Your task to perform on an android device: Go to Wikipedia Image 0: 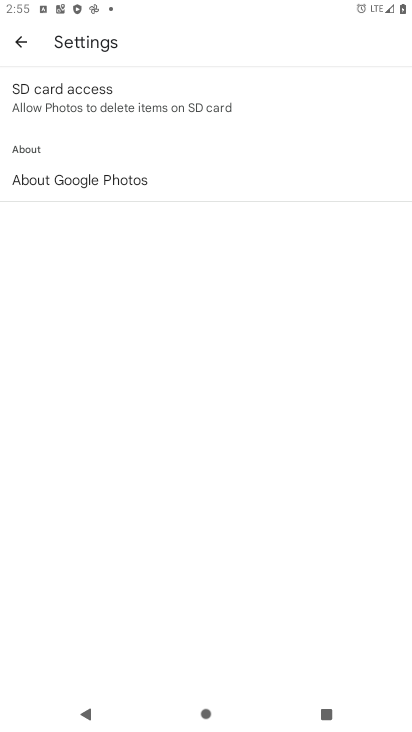
Step 0: press home button
Your task to perform on an android device: Go to Wikipedia Image 1: 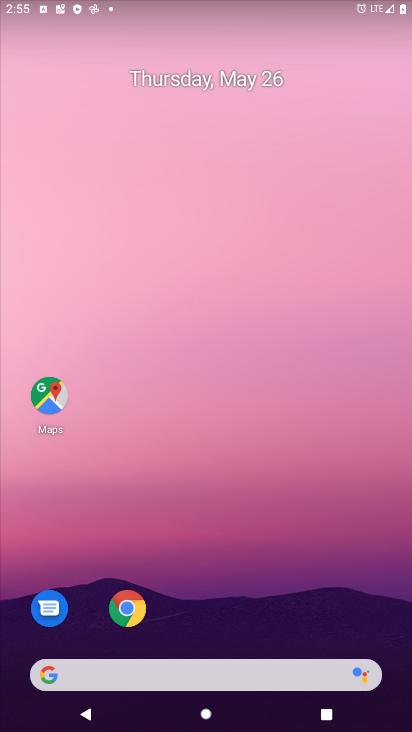
Step 1: click (127, 612)
Your task to perform on an android device: Go to Wikipedia Image 2: 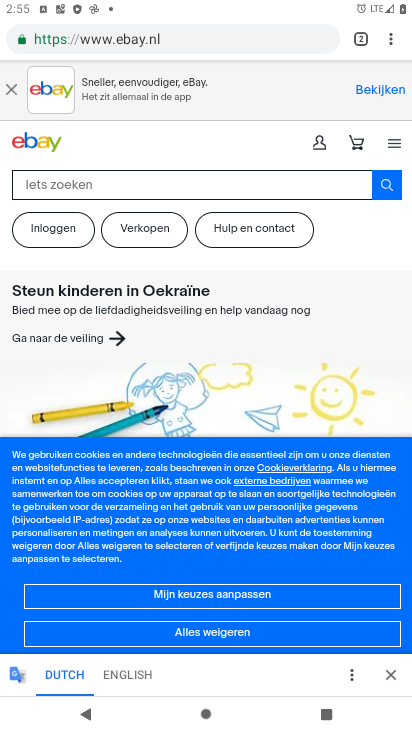
Step 2: click (168, 45)
Your task to perform on an android device: Go to Wikipedia Image 3: 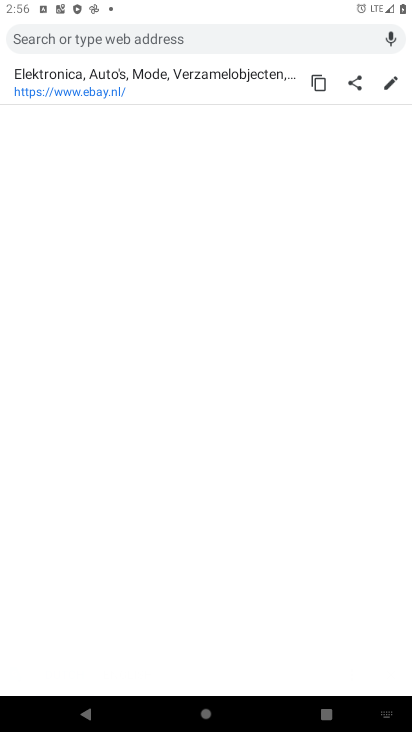
Step 3: type "wikipedia"
Your task to perform on an android device: Go to Wikipedia Image 4: 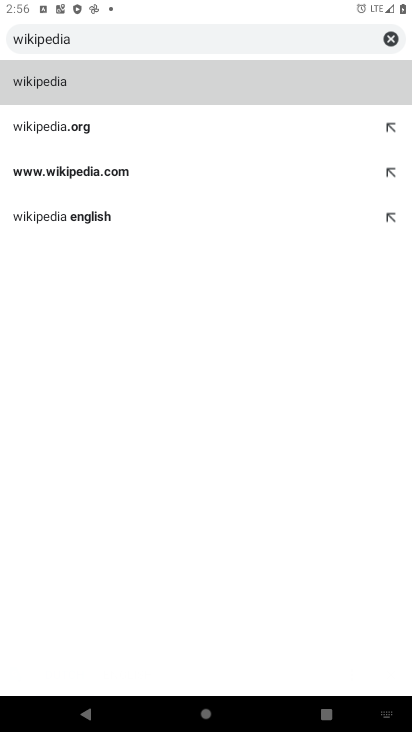
Step 4: click (60, 70)
Your task to perform on an android device: Go to Wikipedia Image 5: 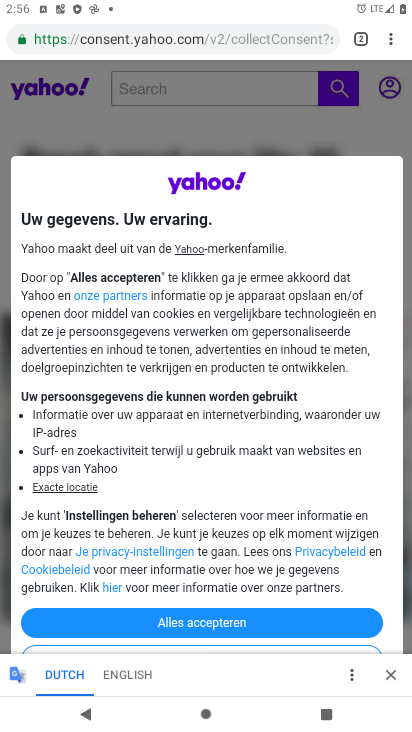
Step 5: click (207, 626)
Your task to perform on an android device: Go to Wikipedia Image 6: 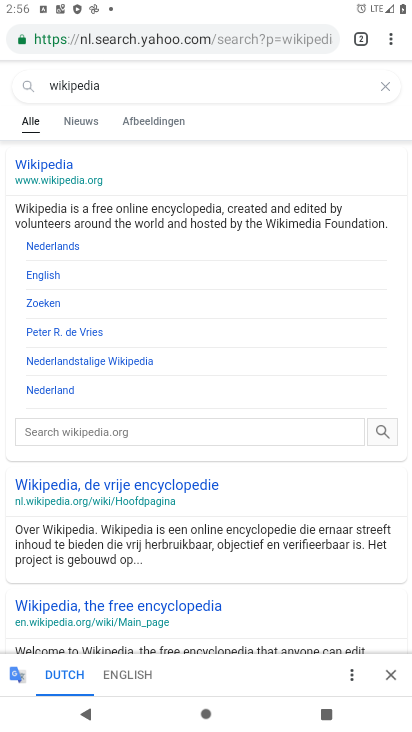
Step 6: click (54, 165)
Your task to perform on an android device: Go to Wikipedia Image 7: 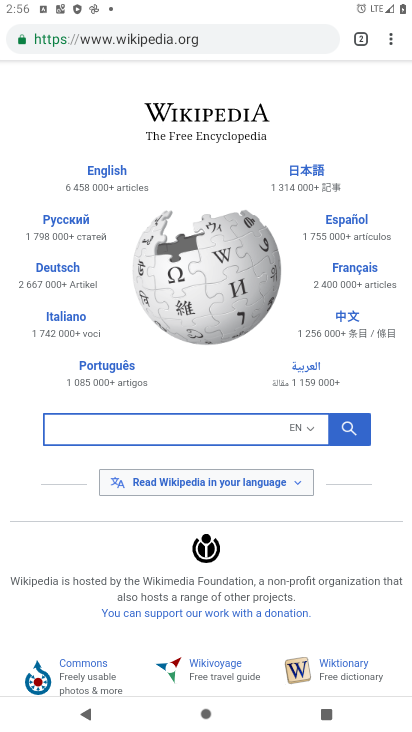
Step 7: task complete